Your task to perform on an android device: turn off sleep mode Image 0: 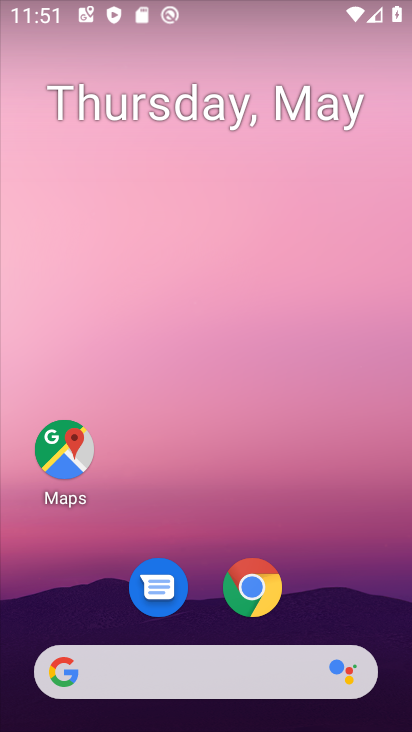
Step 0: drag from (198, 592) to (245, 126)
Your task to perform on an android device: turn off sleep mode Image 1: 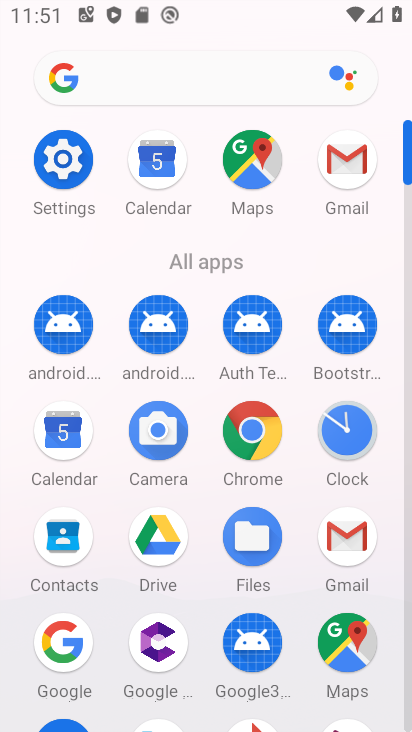
Step 1: click (50, 163)
Your task to perform on an android device: turn off sleep mode Image 2: 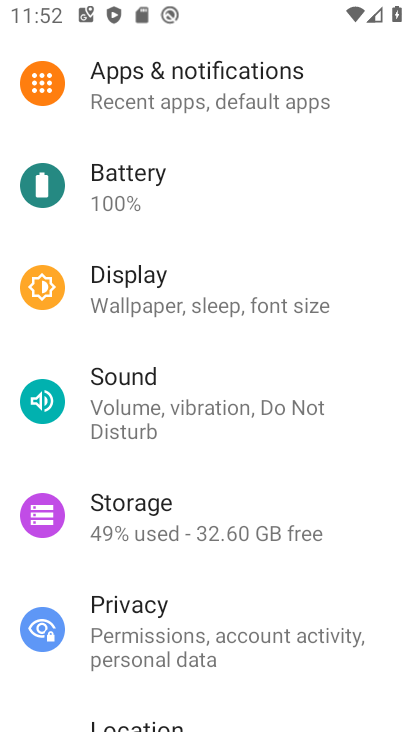
Step 2: drag from (246, 117) to (301, 617)
Your task to perform on an android device: turn off sleep mode Image 3: 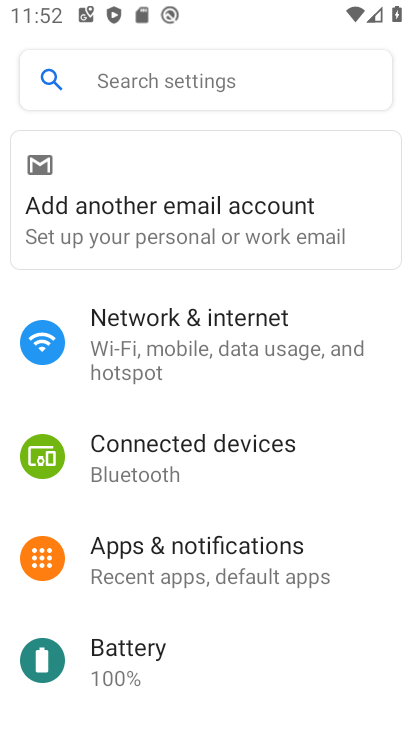
Step 3: click (207, 86)
Your task to perform on an android device: turn off sleep mode Image 4: 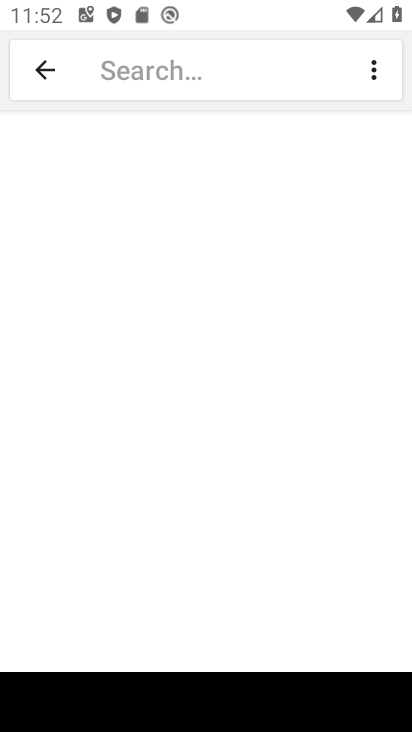
Step 4: type "sleep mode"
Your task to perform on an android device: turn off sleep mode Image 5: 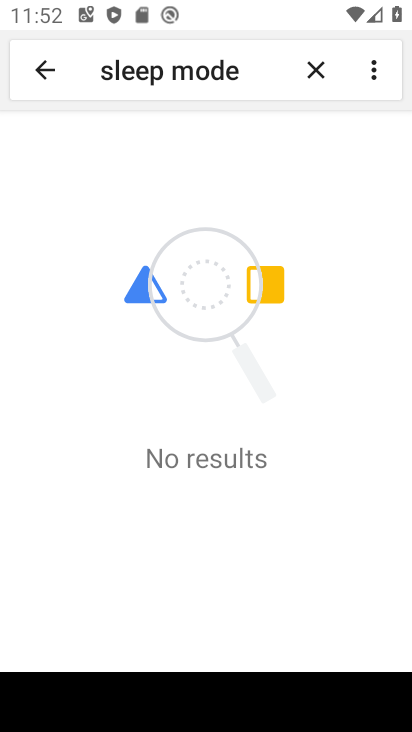
Step 5: task complete